Your task to perform on an android device: change the clock display to analog Image 0: 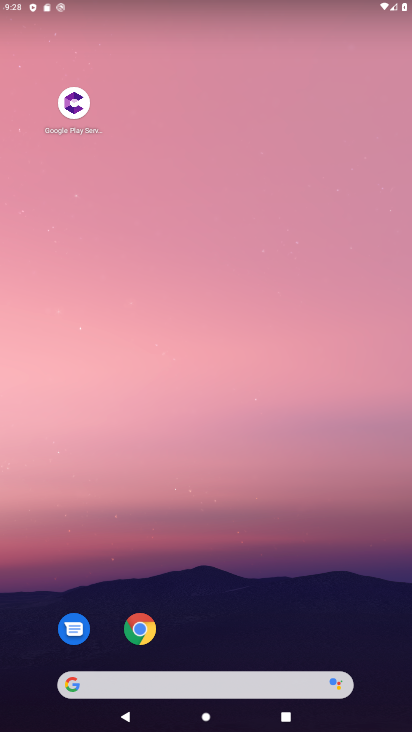
Step 0: drag from (257, 659) to (206, 155)
Your task to perform on an android device: change the clock display to analog Image 1: 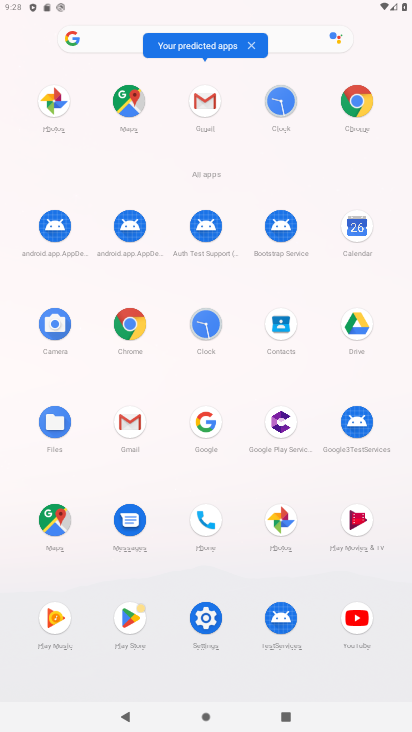
Step 1: click (273, 124)
Your task to perform on an android device: change the clock display to analog Image 2: 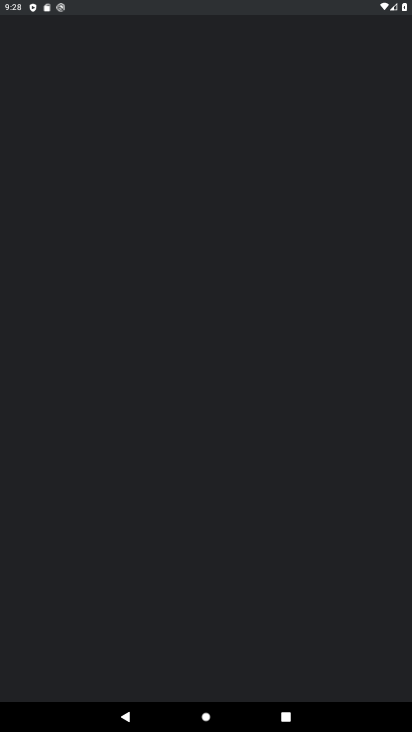
Step 2: task complete